Your task to perform on an android device: check google app version Image 0: 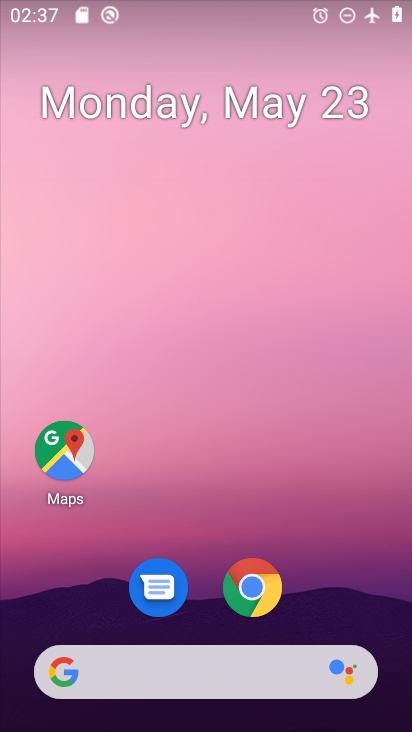
Step 0: drag from (339, 606) to (323, 47)
Your task to perform on an android device: check google app version Image 1: 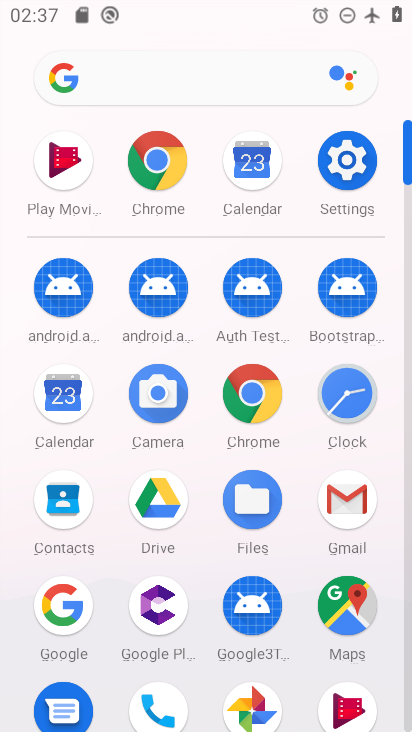
Step 1: click (139, 155)
Your task to perform on an android device: check google app version Image 2: 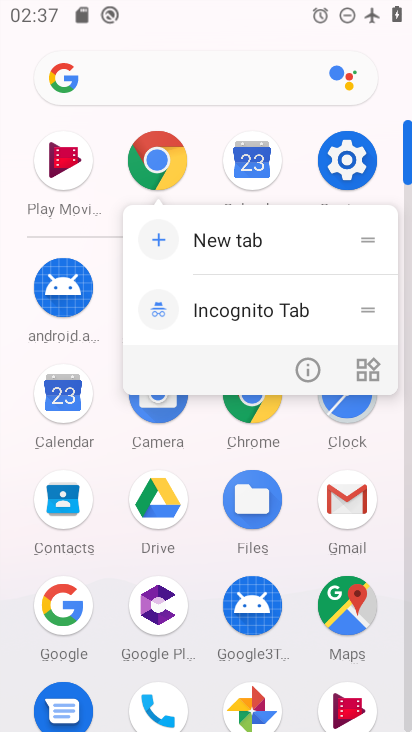
Step 2: click (317, 373)
Your task to perform on an android device: check google app version Image 3: 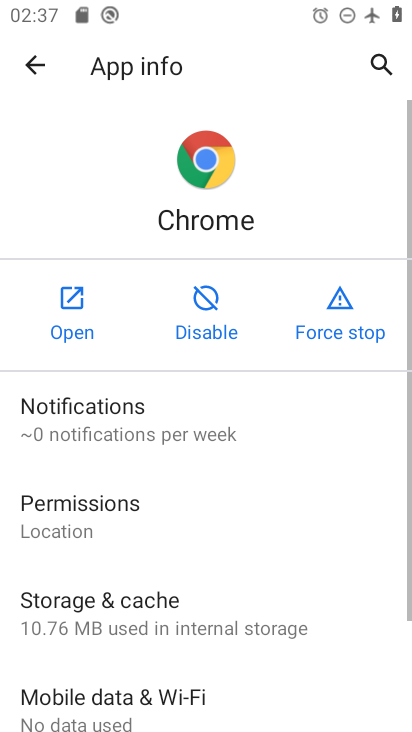
Step 3: task complete